Your task to perform on an android device: change the clock display to show seconds Image 0: 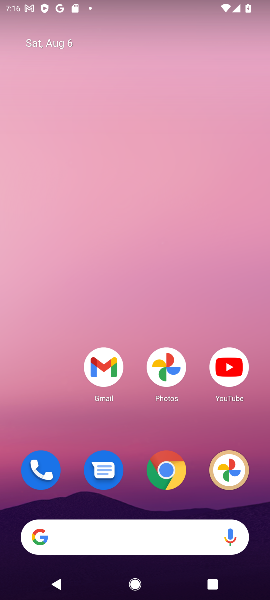
Step 0: drag from (144, 486) to (143, 267)
Your task to perform on an android device: change the clock display to show seconds Image 1: 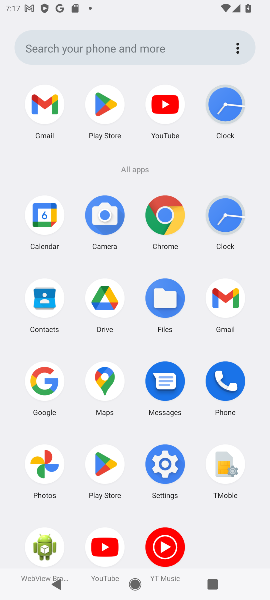
Step 1: click (235, 230)
Your task to perform on an android device: change the clock display to show seconds Image 2: 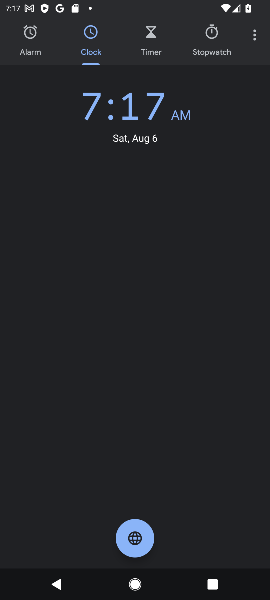
Step 2: click (254, 36)
Your task to perform on an android device: change the clock display to show seconds Image 3: 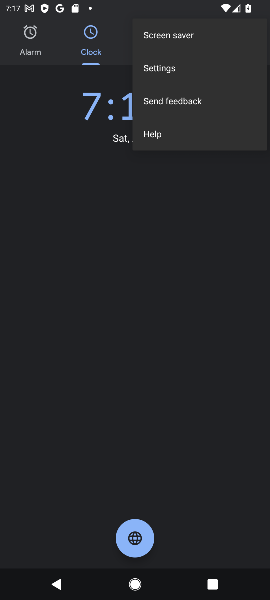
Step 3: click (181, 68)
Your task to perform on an android device: change the clock display to show seconds Image 4: 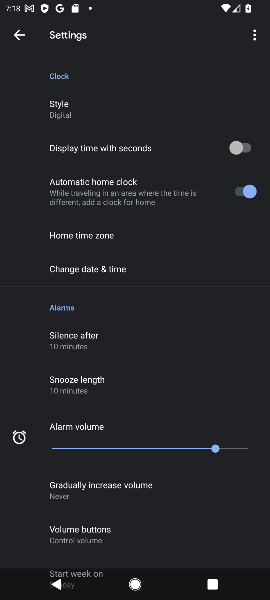
Step 4: click (162, 148)
Your task to perform on an android device: change the clock display to show seconds Image 5: 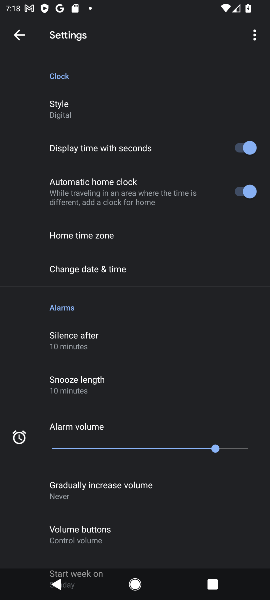
Step 5: task complete